Your task to perform on an android device: open app "Pinterest" Image 0: 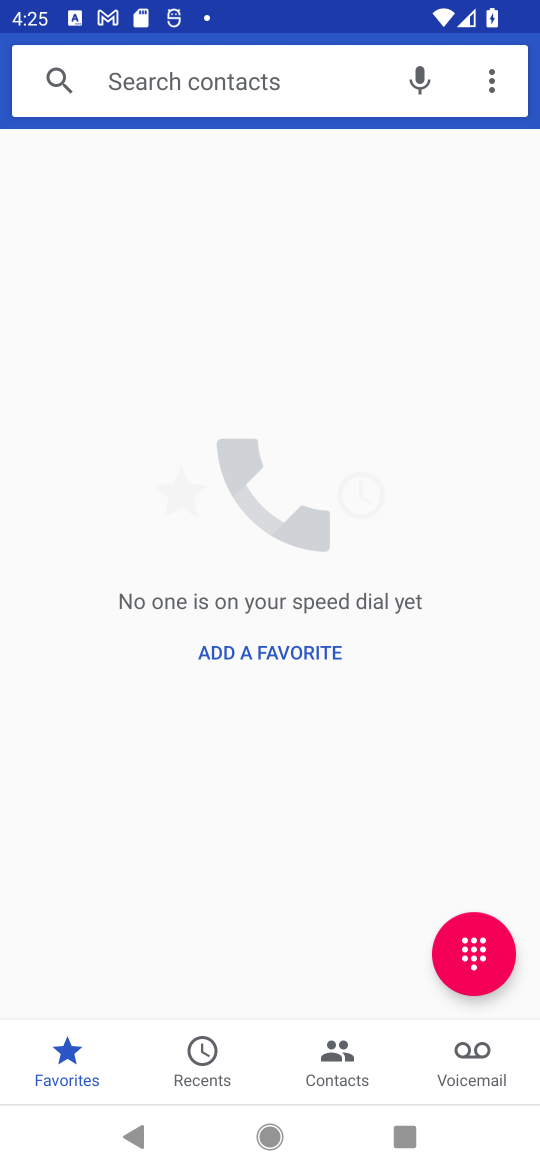
Step 0: press home button
Your task to perform on an android device: open app "Pinterest" Image 1: 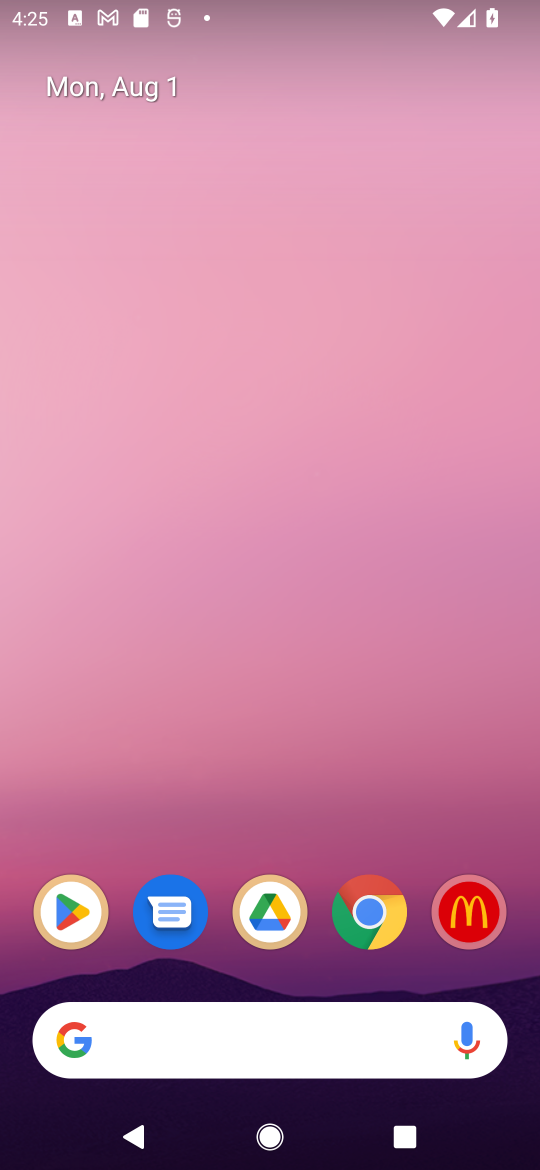
Step 1: click (74, 912)
Your task to perform on an android device: open app "Pinterest" Image 2: 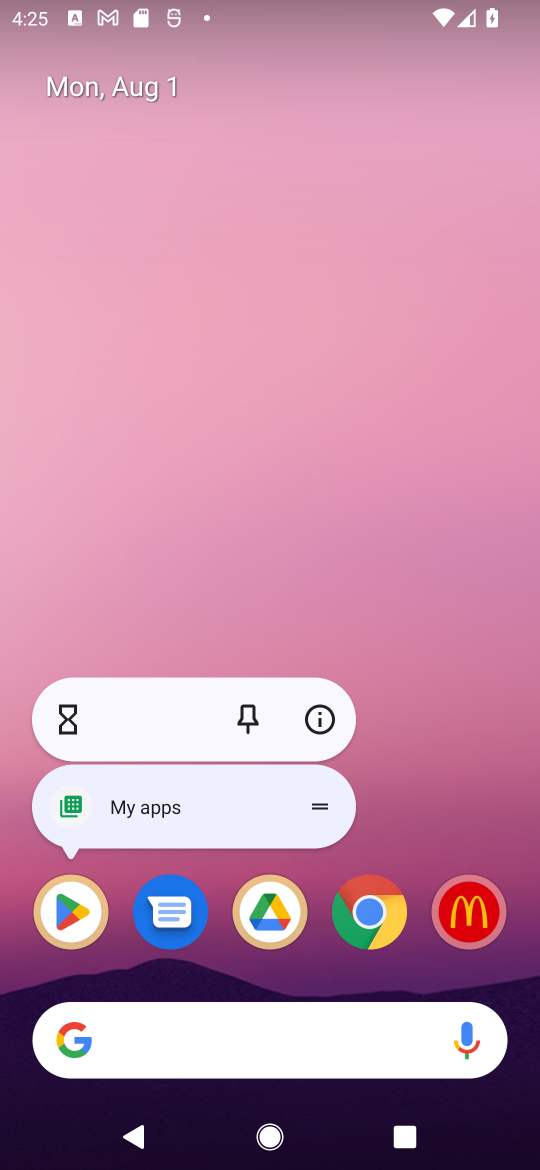
Step 2: click (67, 910)
Your task to perform on an android device: open app "Pinterest" Image 3: 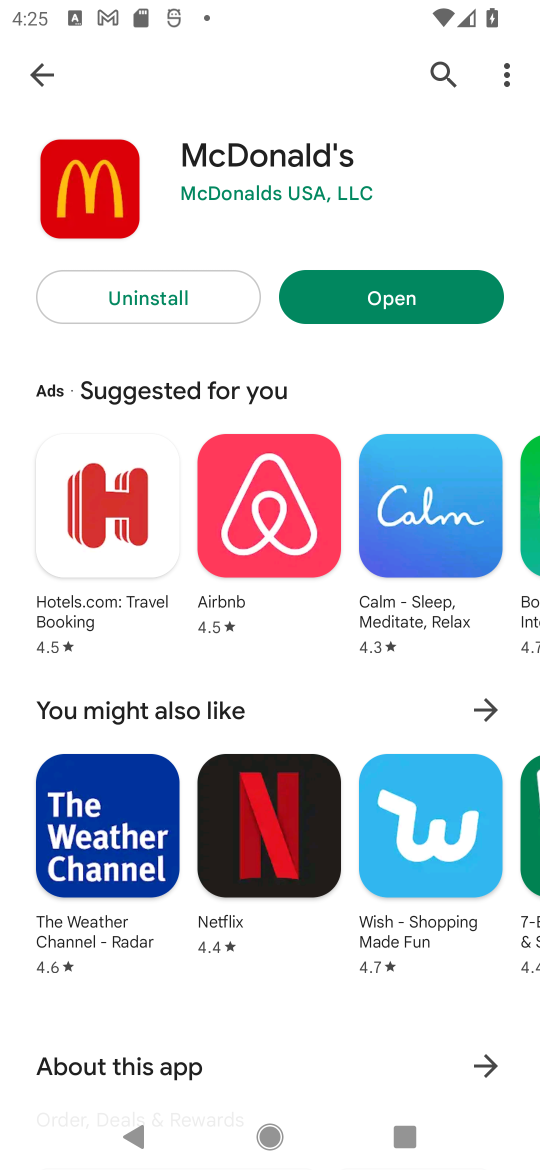
Step 3: click (455, 77)
Your task to perform on an android device: open app "Pinterest" Image 4: 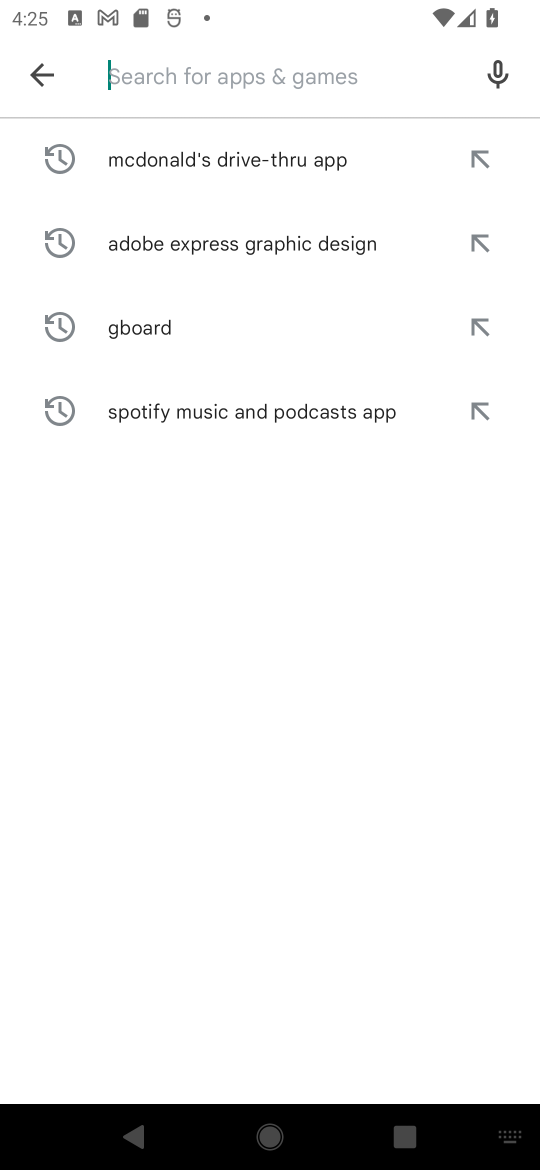
Step 4: type "Pinterest"
Your task to perform on an android device: open app "Pinterest" Image 5: 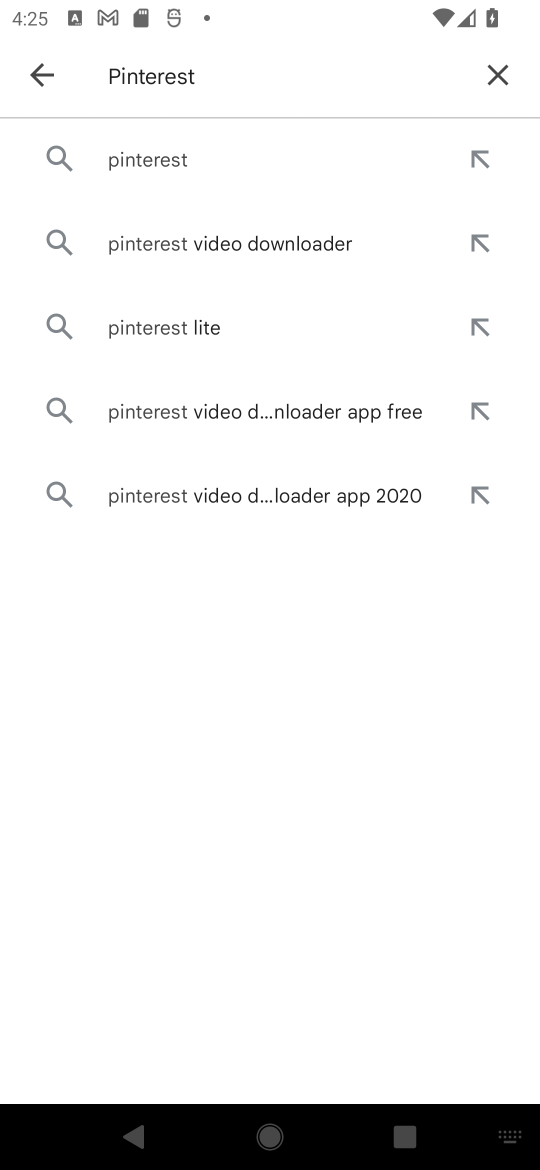
Step 5: click (159, 155)
Your task to perform on an android device: open app "Pinterest" Image 6: 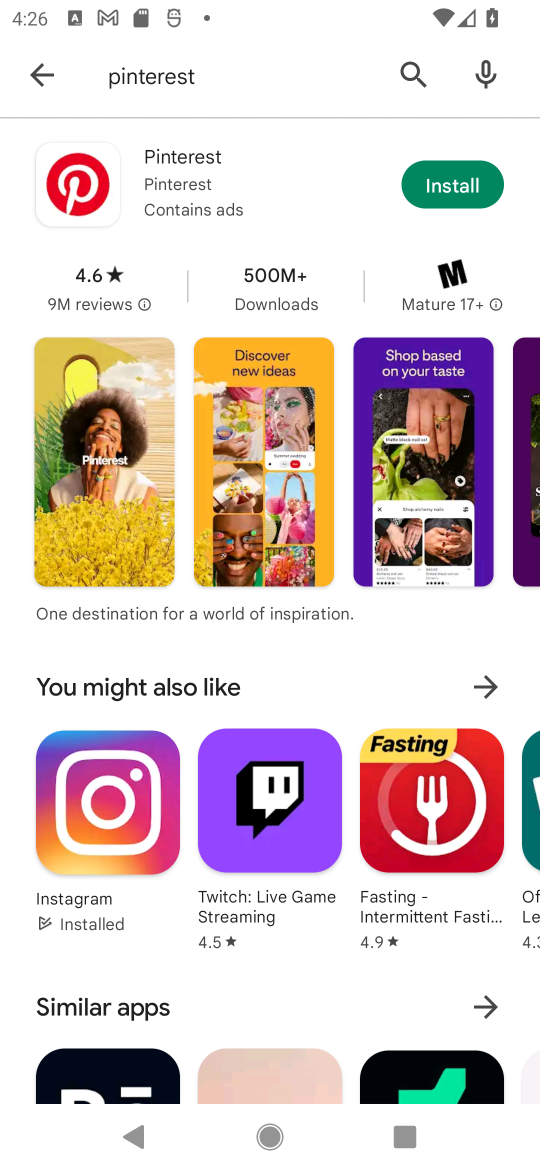
Step 6: task complete